Your task to perform on an android device: snooze an email in the gmail app Image 0: 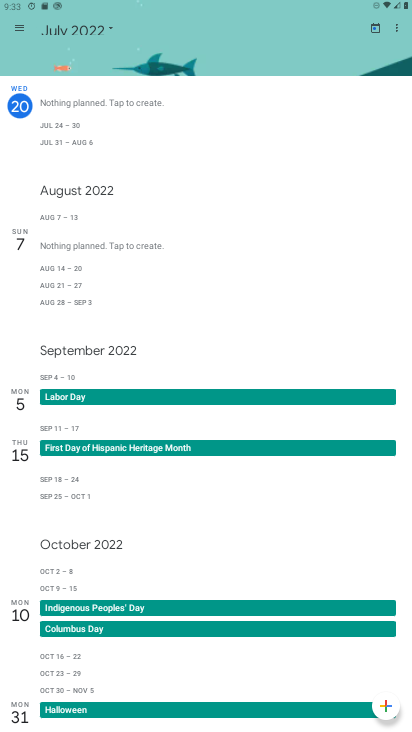
Step 0: press home button
Your task to perform on an android device: snooze an email in the gmail app Image 1: 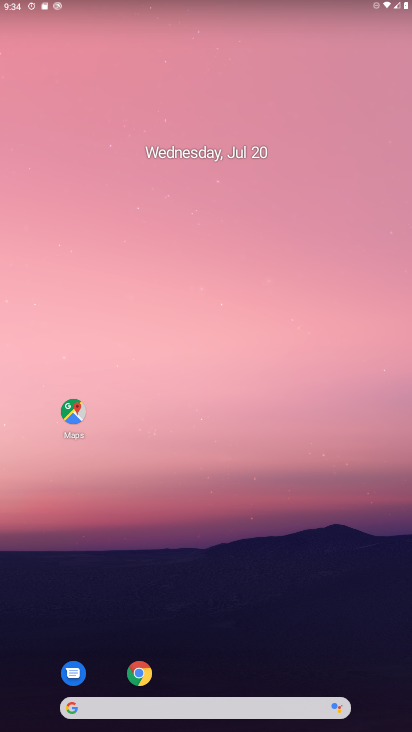
Step 1: drag from (364, 668) to (162, 29)
Your task to perform on an android device: snooze an email in the gmail app Image 2: 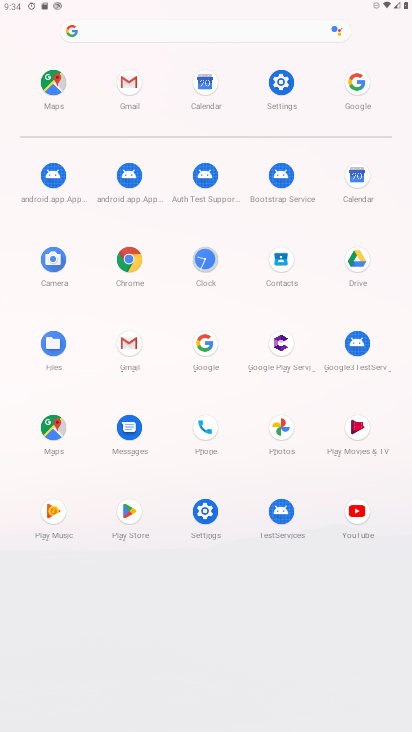
Step 2: click (126, 350)
Your task to perform on an android device: snooze an email in the gmail app Image 3: 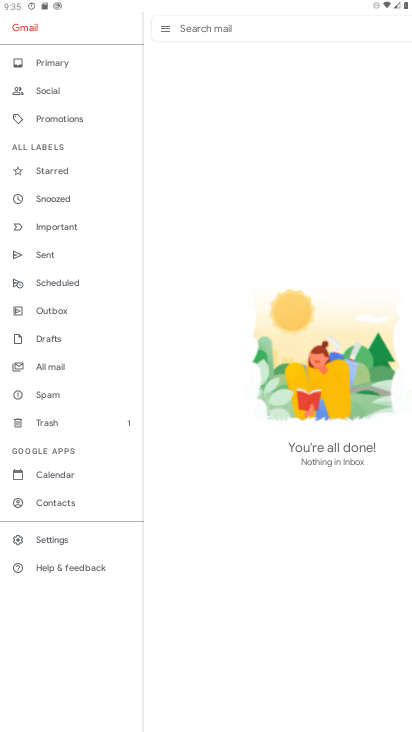
Step 3: task complete